Your task to perform on an android device: set an alarm Image 0: 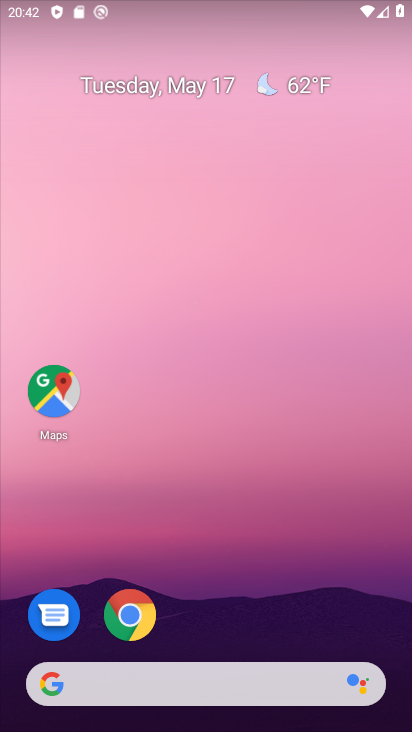
Step 0: drag from (283, 580) to (315, 92)
Your task to perform on an android device: set an alarm Image 1: 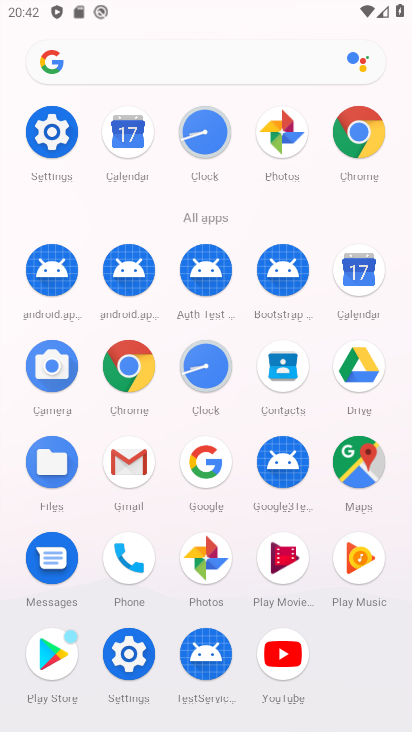
Step 1: click (220, 370)
Your task to perform on an android device: set an alarm Image 2: 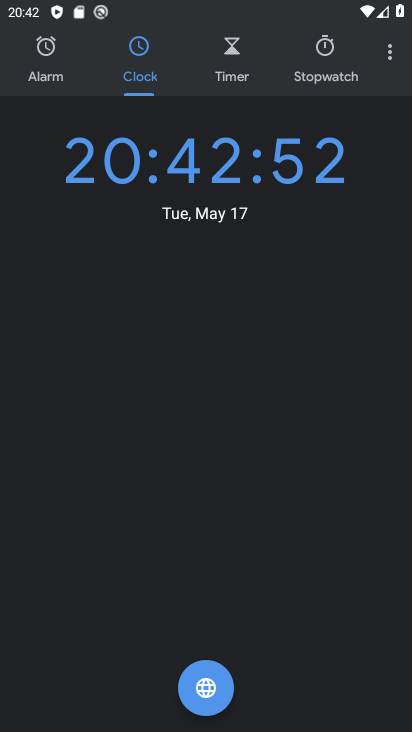
Step 2: click (37, 63)
Your task to perform on an android device: set an alarm Image 3: 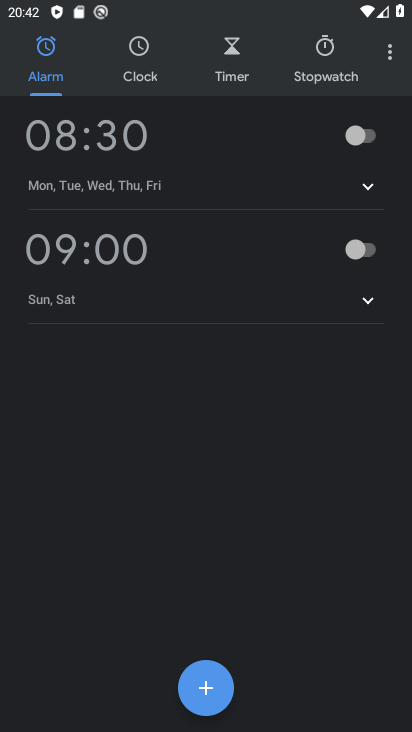
Step 3: click (136, 132)
Your task to perform on an android device: set an alarm Image 4: 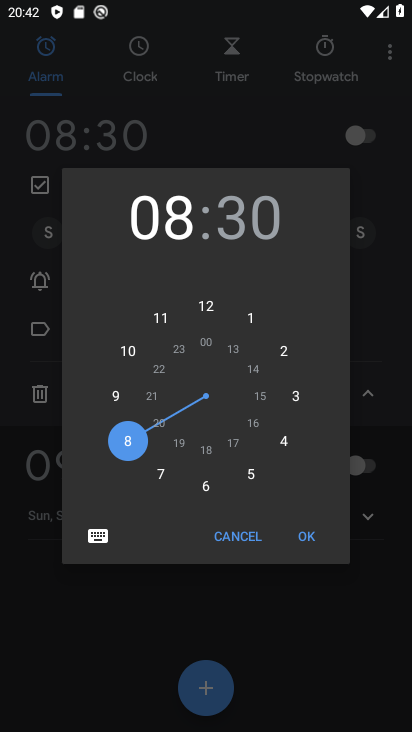
Step 4: click (127, 362)
Your task to perform on an android device: set an alarm Image 5: 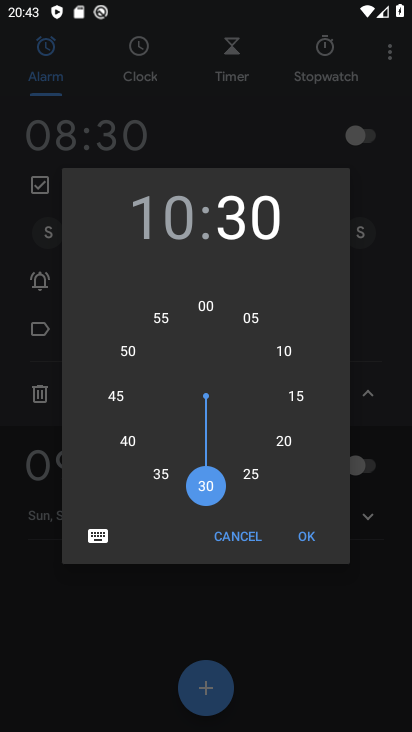
Step 5: click (210, 476)
Your task to perform on an android device: set an alarm Image 6: 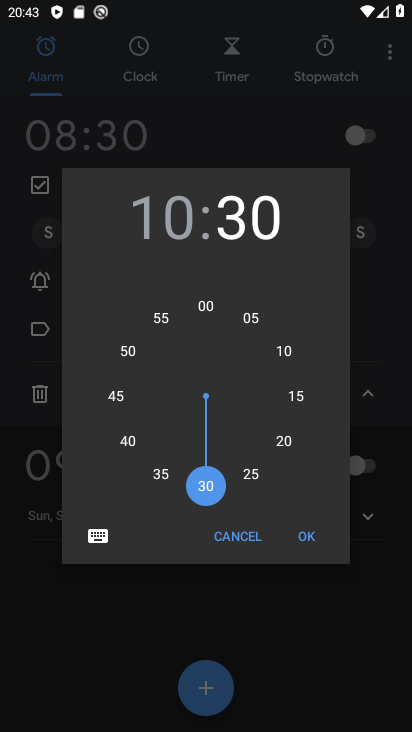
Step 6: click (206, 486)
Your task to perform on an android device: set an alarm Image 7: 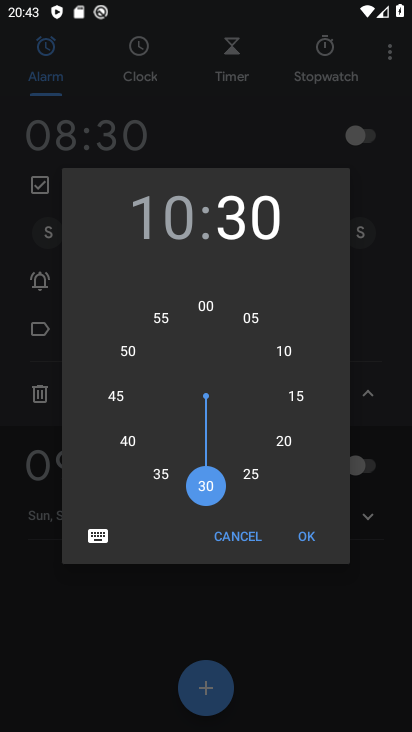
Step 7: click (317, 529)
Your task to perform on an android device: set an alarm Image 8: 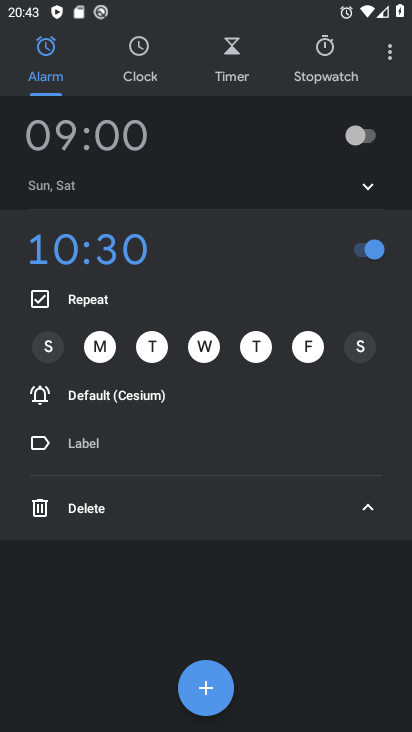
Step 8: task complete